Your task to perform on an android device: turn off sleep mode Image 0: 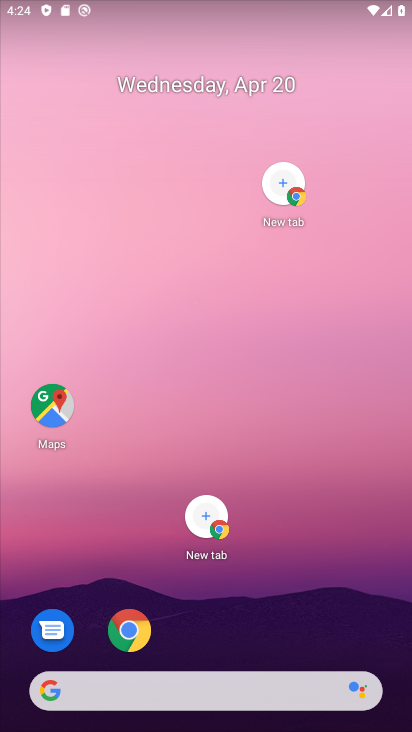
Step 0: drag from (307, 708) to (171, 270)
Your task to perform on an android device: turn off sleep mode Image 1: 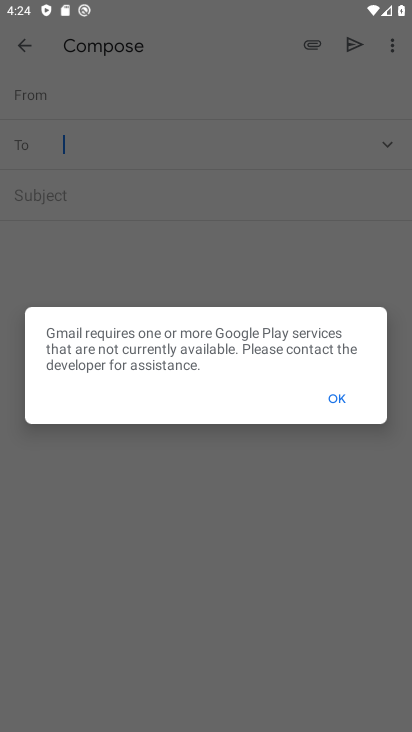
Step 1: task complete